Your task to perform on an android device: Open display settings Image 0: 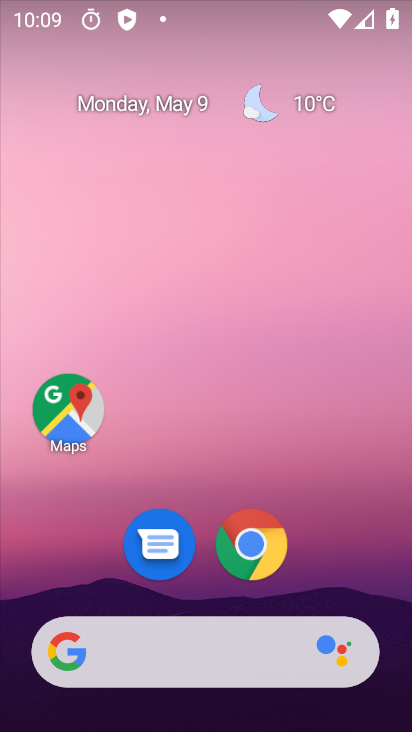
Step 0: drag from (381, 434) to (366, 326)
Your task to perform on an android device: Open display settings Image 1: 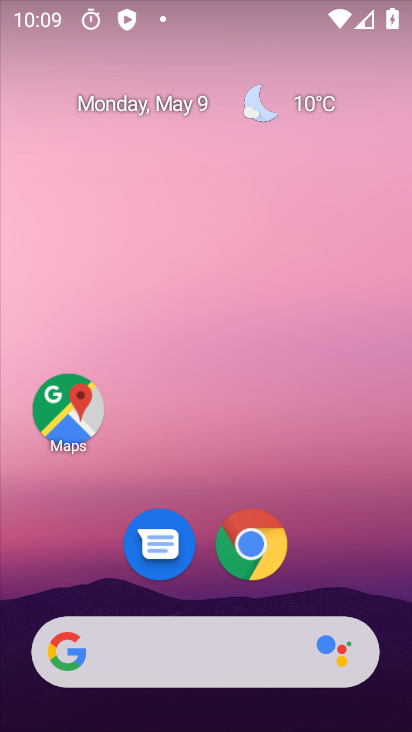
Step 1: drag from (389, 677) to (383, 265)
Your task to perform on an android device: Open display settings Image 2: 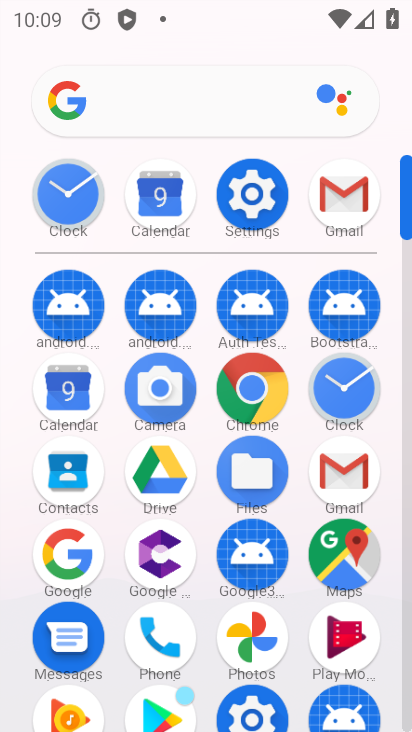
Step 2: click (239, 204)
Your task to perform on an android device: Open display settings Image 3: 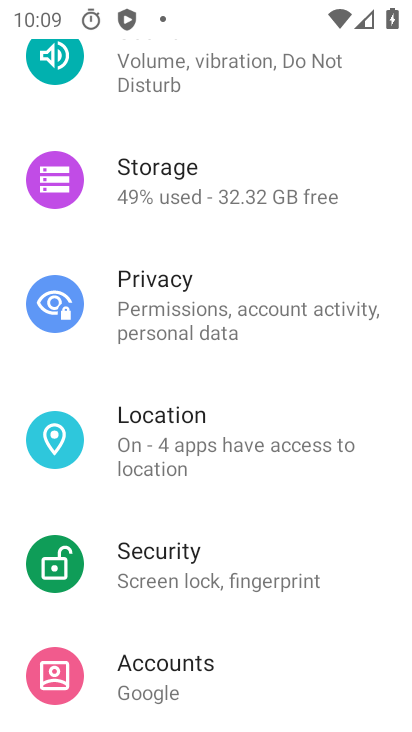
Step 3: drag from (341, 128) to (371, 424)
Your task to perform on an android device: Open display settings Image 4: 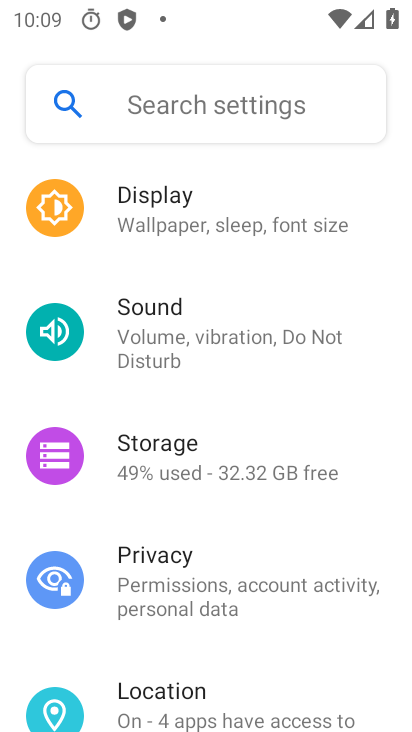
Step 4: click (157, 200)
Your task to perform on an android device: Open display settings Image 5: 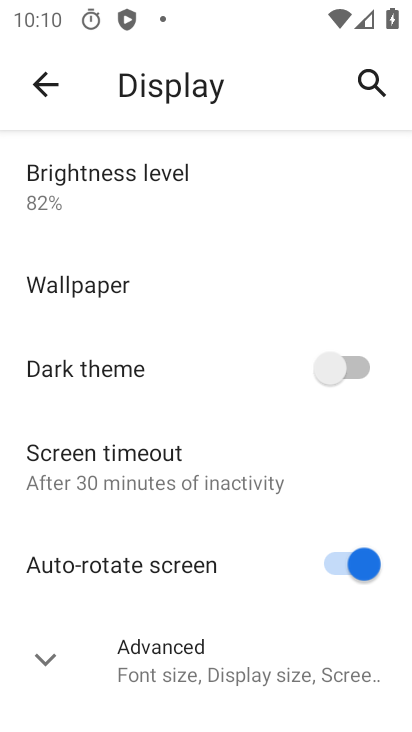
Step 5: task complete